Your task to perform on an android device: Open my contact list Image 0: 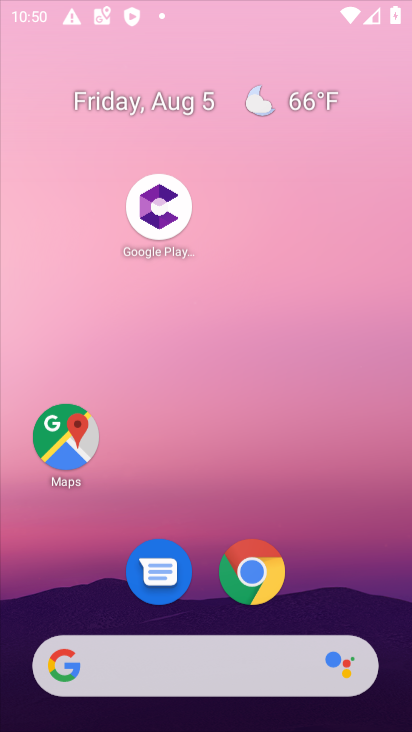
Step 0: press home button
Your task to perform on an android device: Open my contact list Image 1: 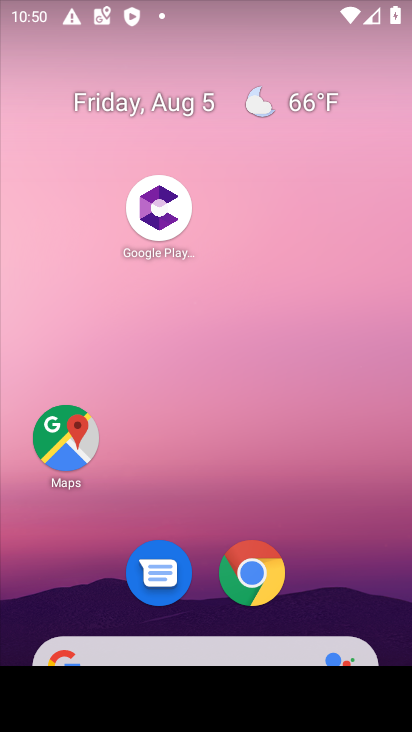
Step 1: drag from (209, 610) to (250, 10)
Your task to perform on an android device: Open my contact list Image 2: 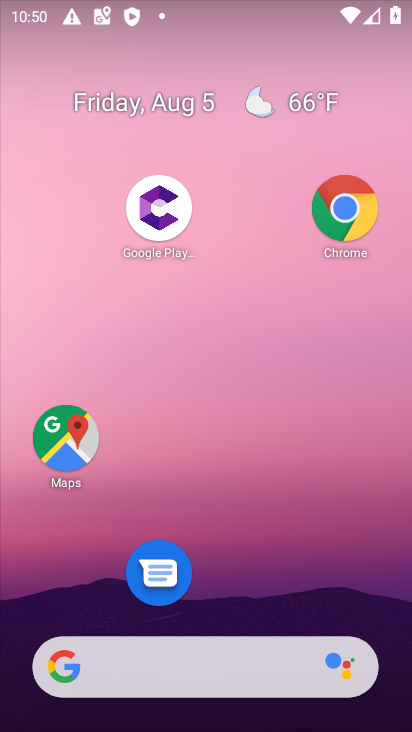
Step 2: drag from (242, 610) to (247, 5)
Your task to perform on an android device: Open my contact list Image 3: 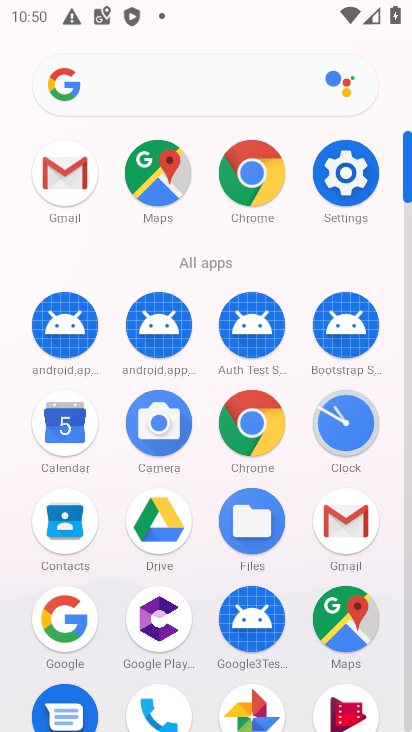
Step 3: click (60, 518)
Your task to perform on an android device: Open my contact list Image 4: 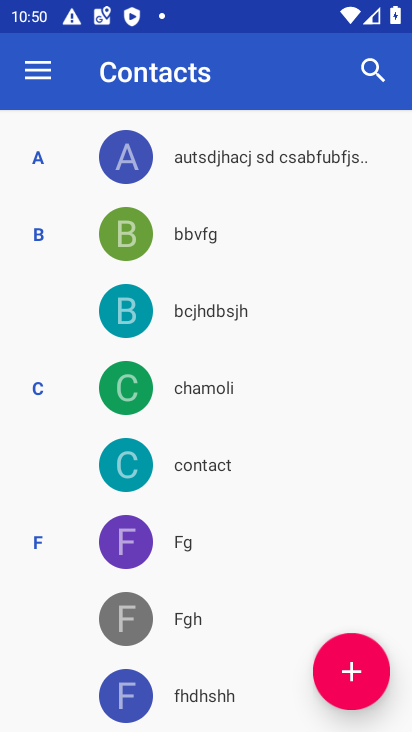
Step 4: task complete